Your task to perform on an android device: Open maps Image 0: 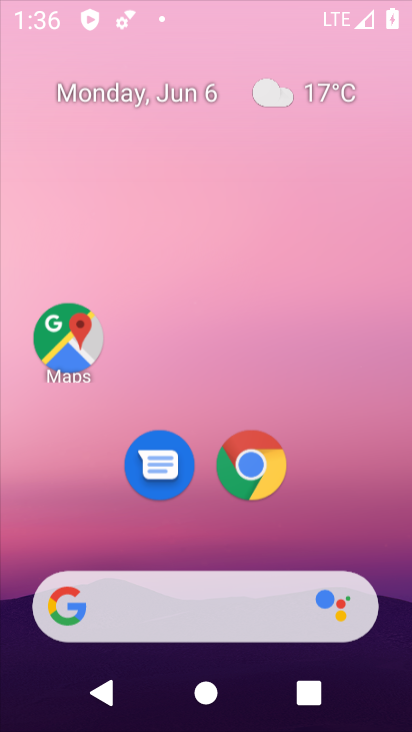
Step 0: press home button
Your task to perform on an android device: Open maps Image 1: 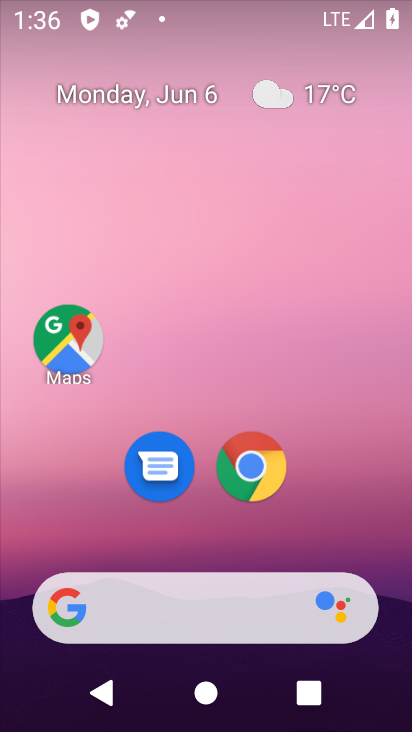
Step 1: click (68, 343)
Your task to perform on an android device: Open maps Image 2: 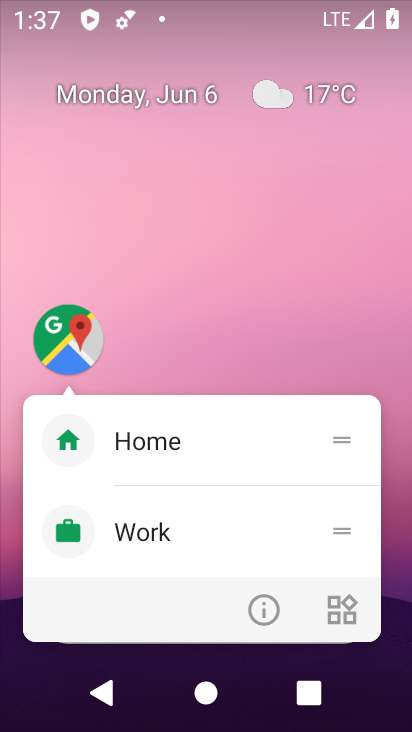
Step 2: click (290, 322)
Your task to perform on an android device: Open maps Image 3: 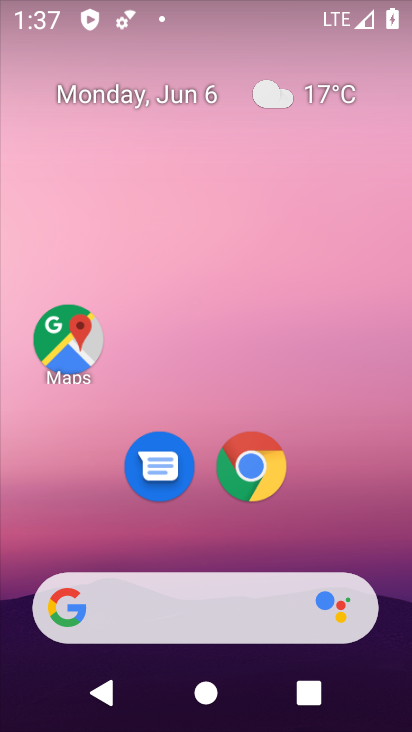
Step 3: drag from (218, 519) to (186, 151)
Your task to perform on an android device: Open maps Image 4: 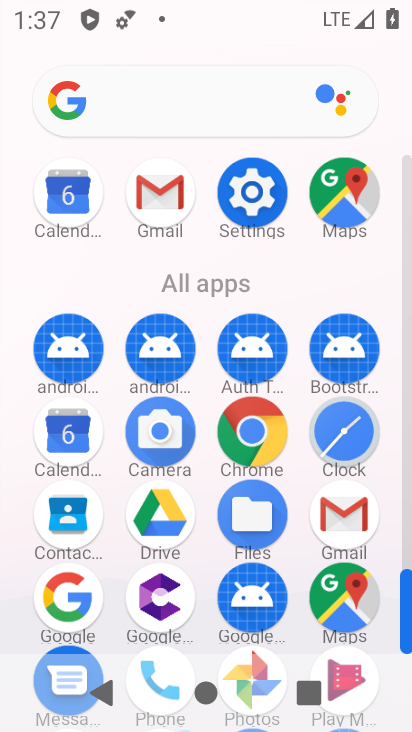
Step 4: click (351, 194)
Your task to perform on an android device: Open maps Image 5: 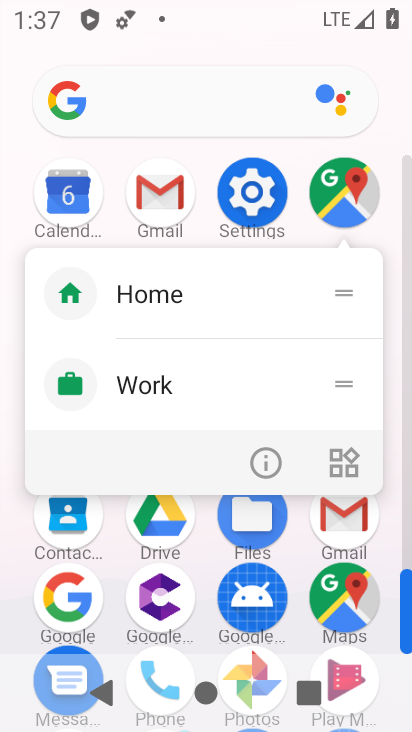
Step 5: click (351, 194)
Your task to perform on an android device: Open maps Image 6: 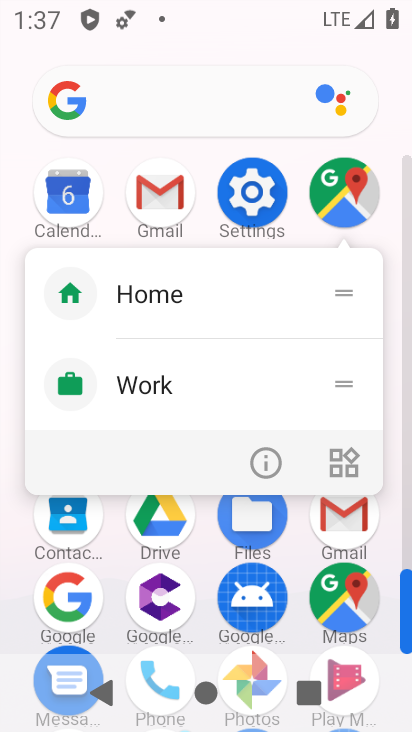
Step 6: click (344, 201)
Your task to perform on an android device: Open maps Image 7: 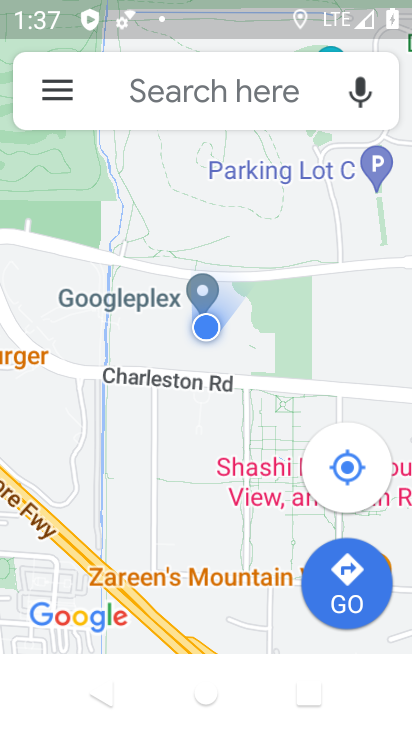
Step 7: task complete